Your task to perform on an android device: Open Chrome and go to the settings page Image 0: 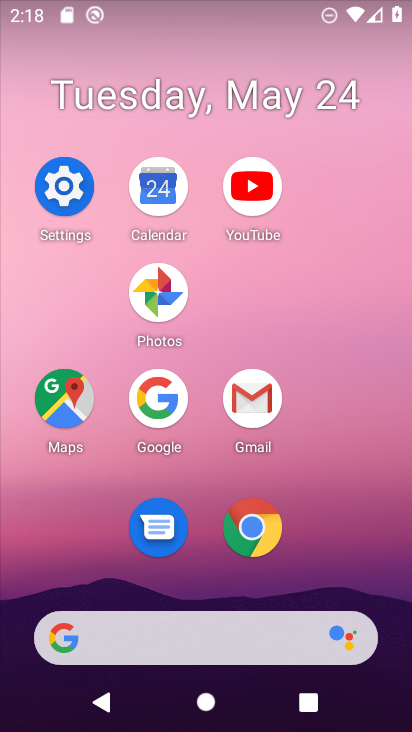
Step 0: click (245, 516)
Your task to perform on an android device: Open Chrome and go to the settings page Image 1: 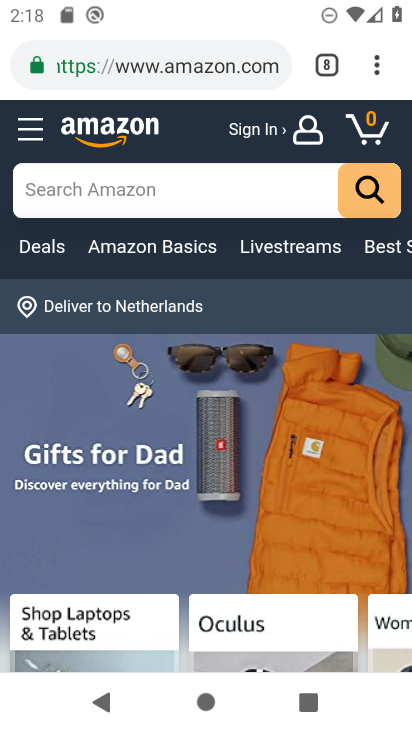
Step 1: click (387, 64)
Your task to perform on an android device: Open Chrome and go to the settings page Image 2: 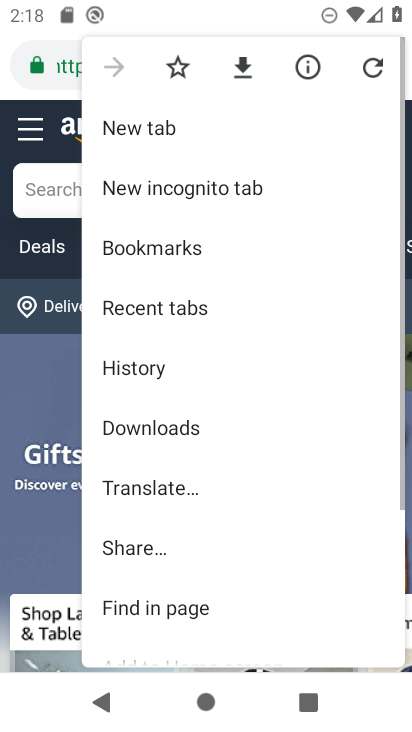
Step 2: drag from (263, 564) to (259, 231)
Your task to perform on an android device: Open Chrome and go to the settings page Image 3: 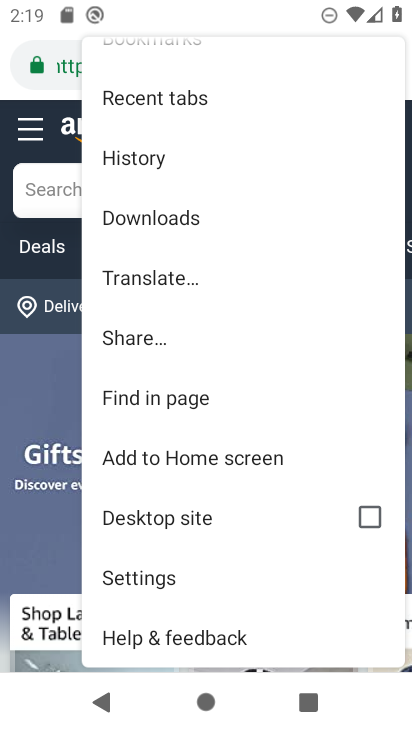
Step 3: click (134, 565)
Your task to perform on an android device: Open Chrome and go to the settings page Image 4: 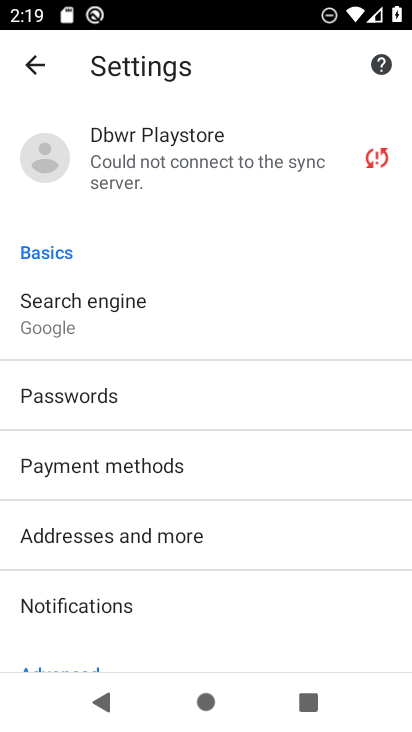
Step 4: task complete